Your task to perform on an android device: change timer sound Image 0: 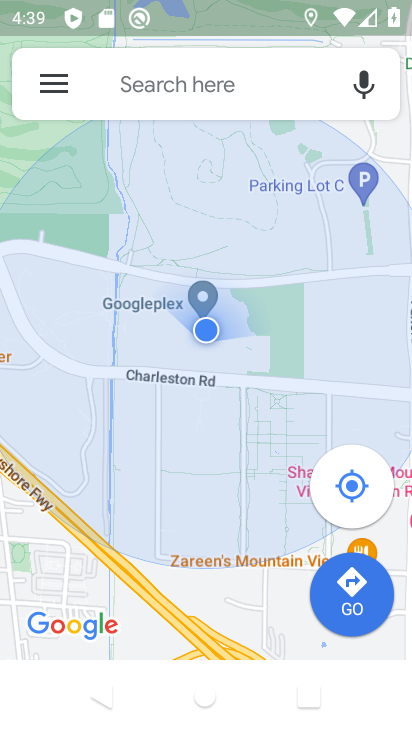
Step 0: press home button
Your task to perform on an android device: change timer sound Image 1: 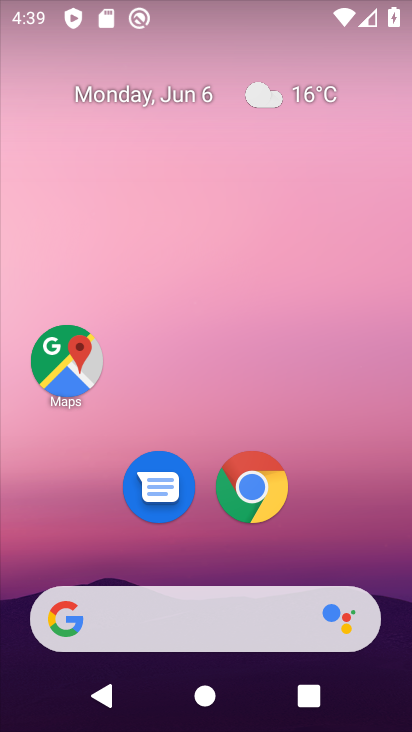
Step 1: drag from (306, 535) to (289, 12)
Your task to perform on an android device: change timer sound Image 2: 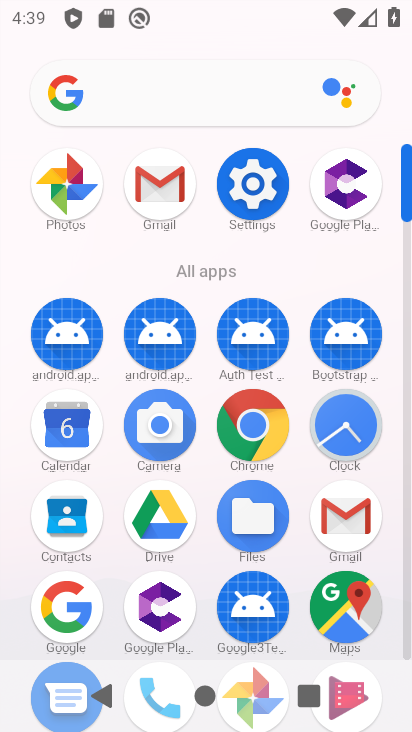
Step 2: click (265, 182)
Your task to perform on an android device: change timer sound Image 3: 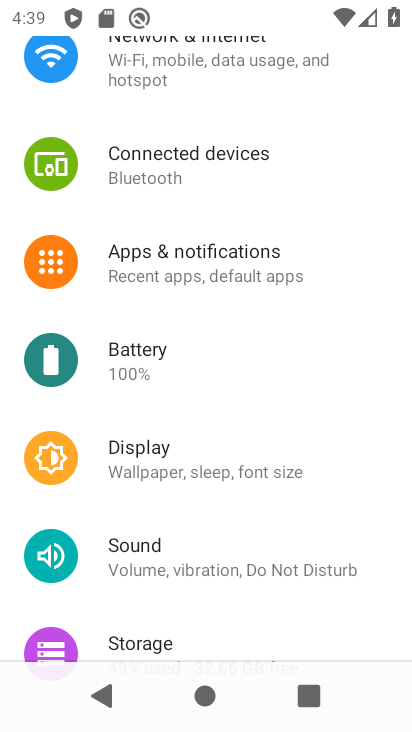
Step 3: press home button
Your task to perform on an android device: change timer sound Image 4: 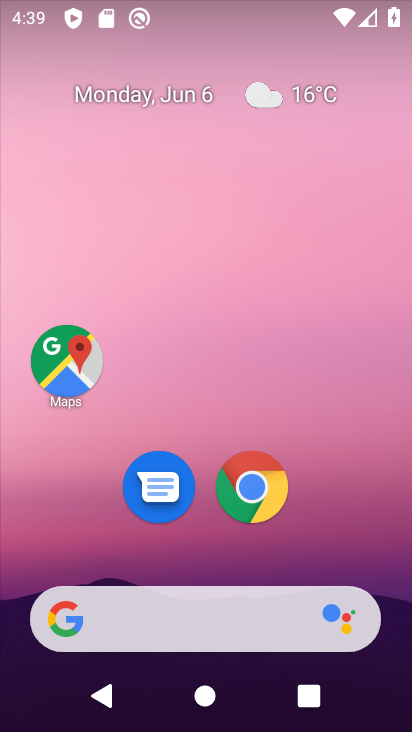
Step 4: drag from (317, 533) to (323, 35)
Your task to perform on an android device: change timer sound Image 5: 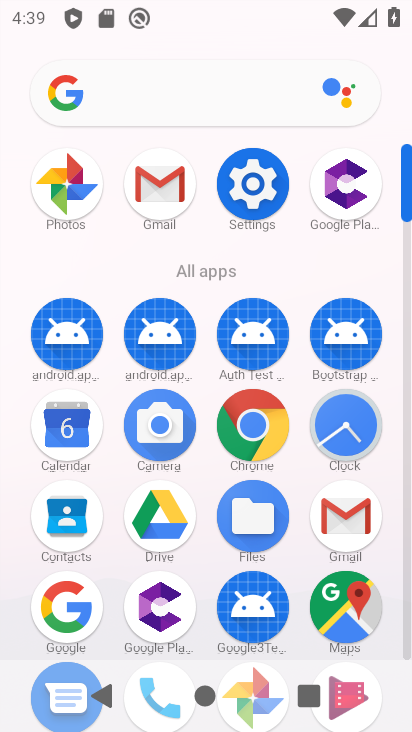
Step 5: click (328, 416)
Your task to perform on an android device: change timer sound Image 6: 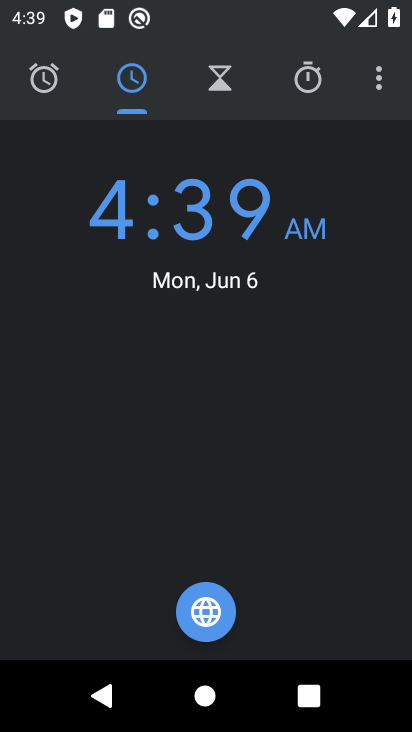
Step 6: click (374, 78)
Your task to perform on an android device: change timer sound Image 7: 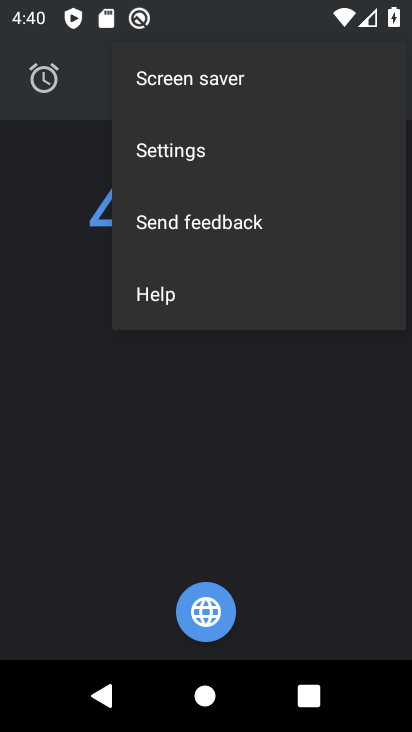
Step 7: click (243, 163)
Your task to perform on an android device: change timer sound Image 8: 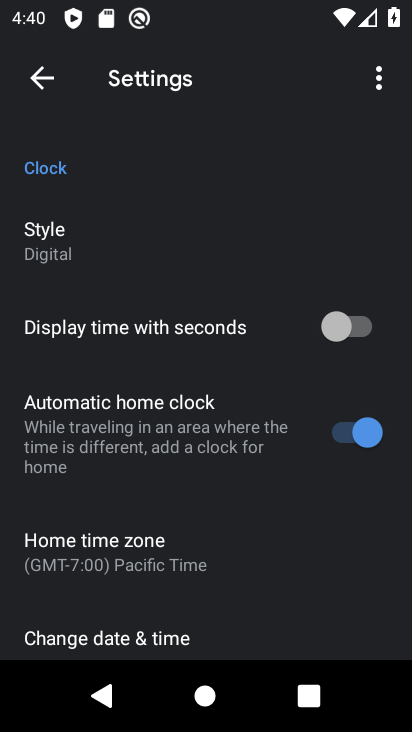
Step 8: drag from (232, 514) to (221, 32)
Your task to perform on an android device: change timer sound Image 9: 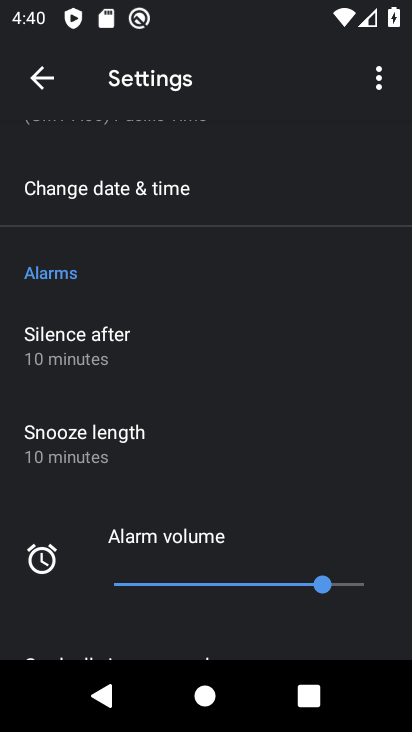
Step 9: drag from (235, 448) to (237, 0)
Your task to perform on an android device: change timer sound Image 10: 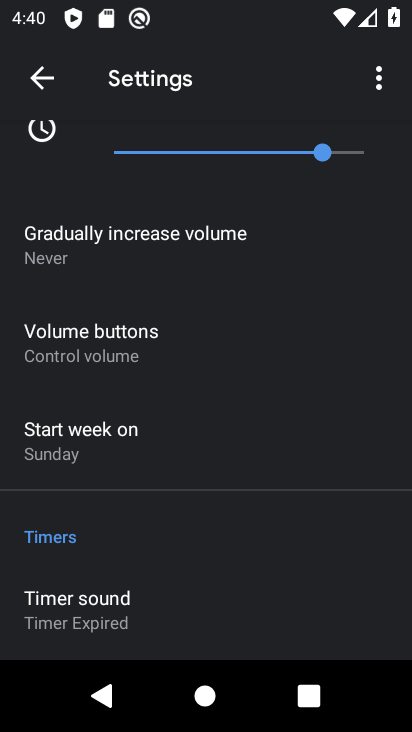
Step 10: drag from (245, 440) to (254, 258)
Your task to perform on an android device: change timer sound Image 11: 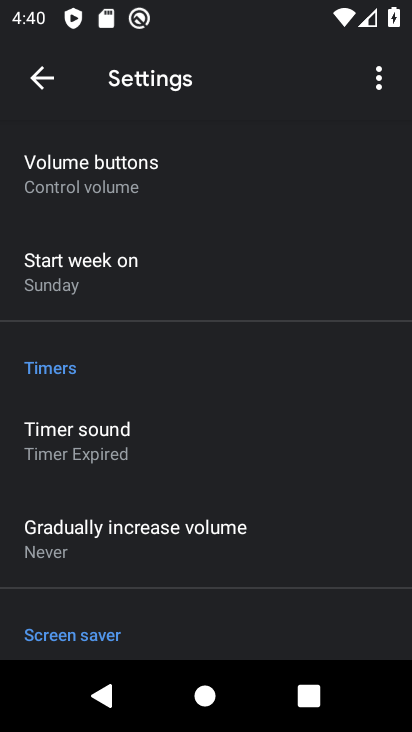
Step 11: click (236, 447)
Your task to perform on an android device: change timer sound Image 12: 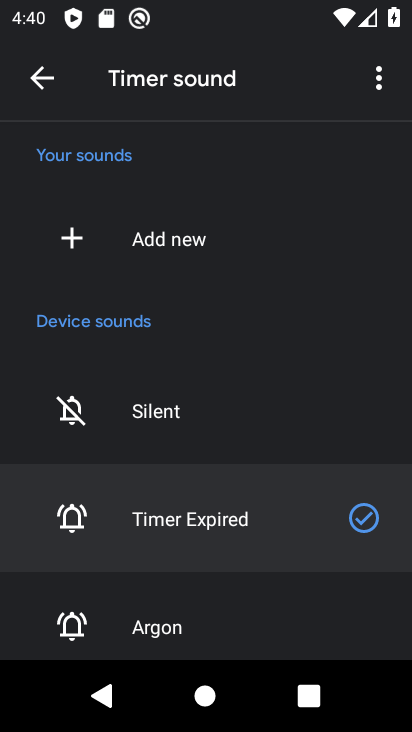
Step 12: drag from (236, 445) to (217, 179)
Your task to perform on an android device: change timer sound Image 13: 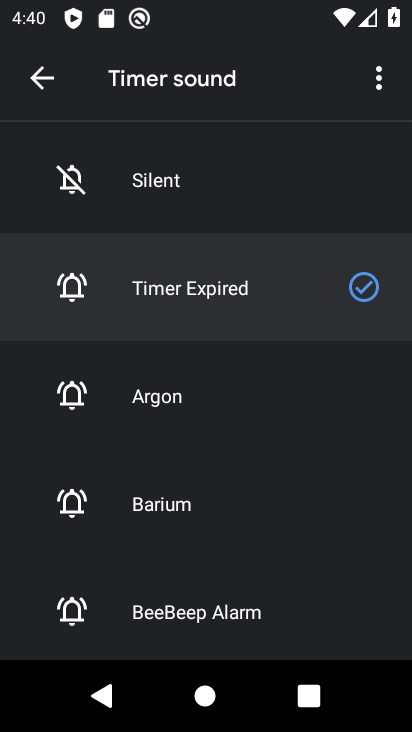
Step 13: drag from (222, 499) to (231, 169)
Your task to perform on an android device: change timer sound Image 14: 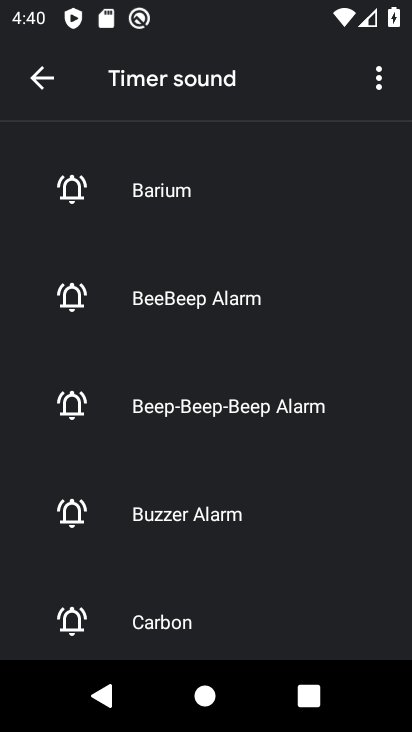
Step 14: drag from (220, 571) to (225, 283)
Your task to perform on an android device: change timer sound Image 15: 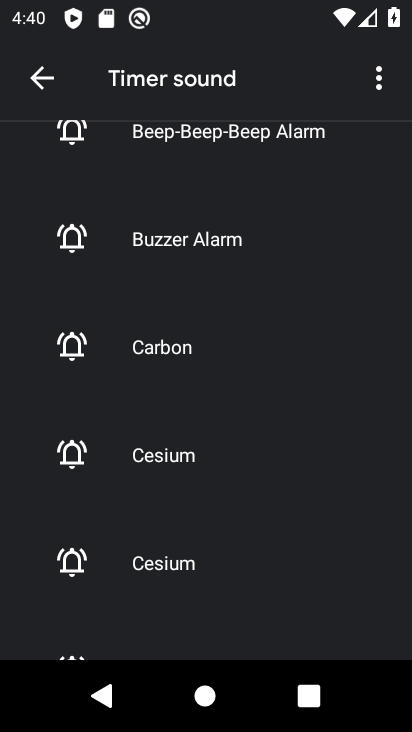
Step 15: click (206, 462)
Your task to perform on an android device: change timer sound Image 16: 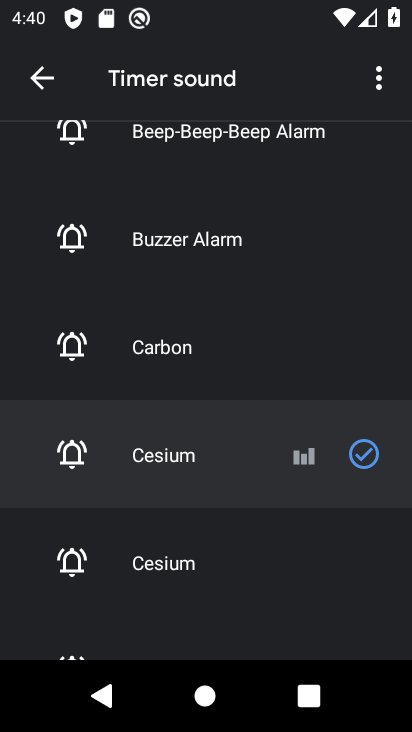
Step 16: task complete